Your task to perform on an android device: What is the news today? Image 0: 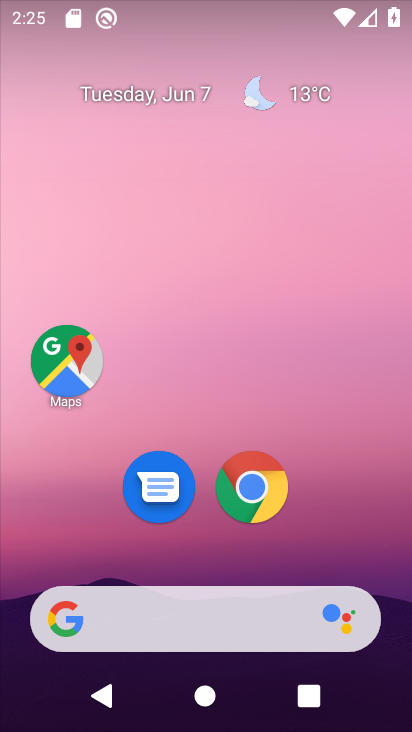
Step 0: click (236, 619)
Your task to perform on an android device: What is the news today? Image 1: 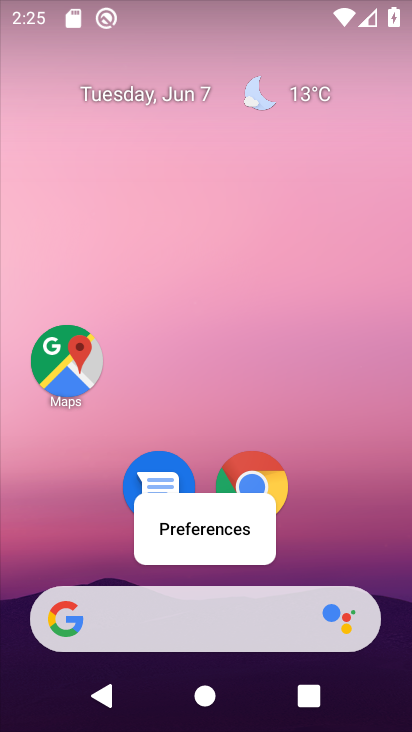
Step 1: click (236, 619)
Your task to perform on an android device: What is the news today? Image 2: 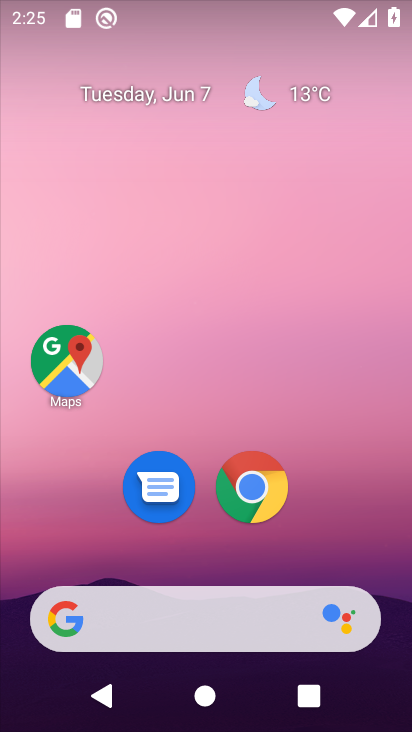
Step 2: click (236, 619)
Your task to perform on an android device: What is the news today? Image 3: 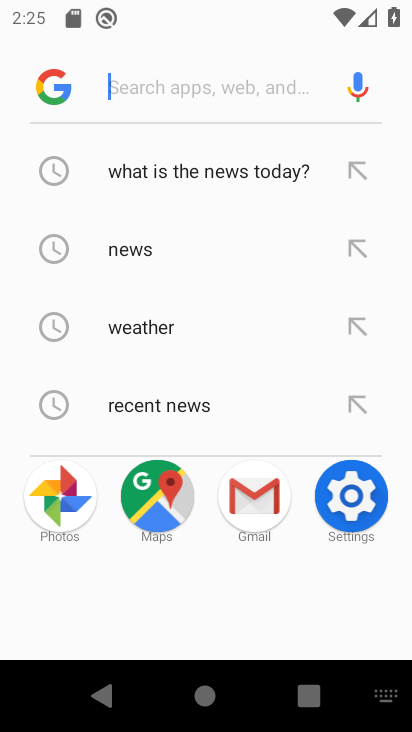
Step 3: click (211, 239)
Your task to perform on an android device: What is the news today? Image 4: 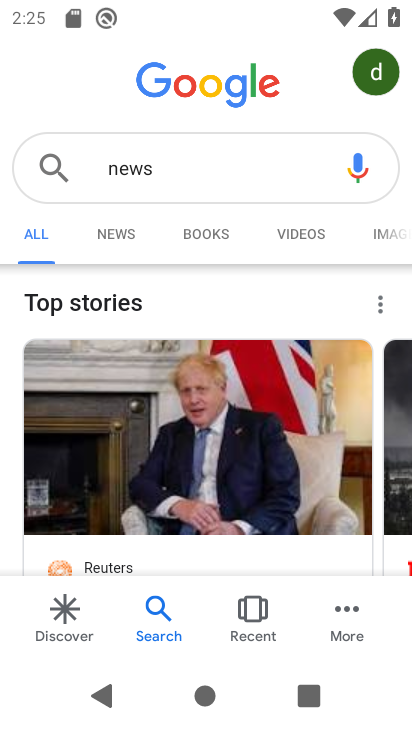
Step 4: task complete